Your task to perform on an android device: star an email in the gmail app Image 0: 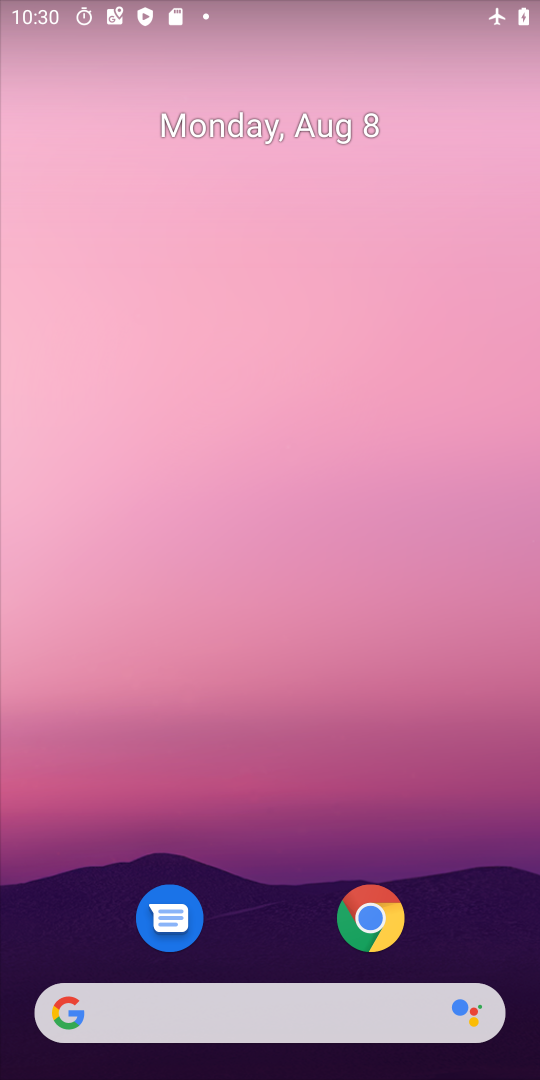
Step 0: drag from (304, 925) to (209, 91)
Your task to perform on an android device: star an email in the gmail app Image 1: 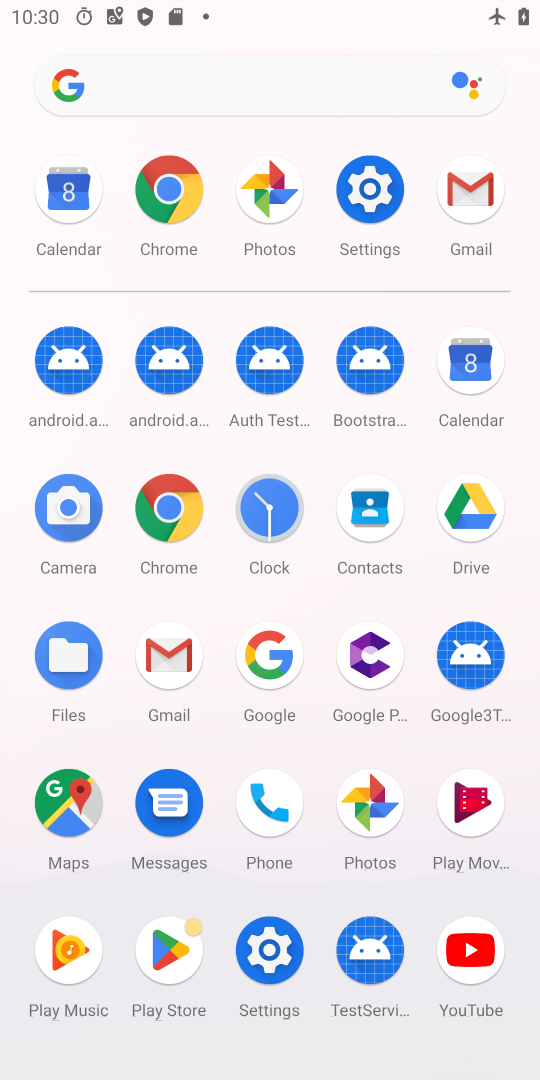
Step 1: click (162, 650)
Your task to perform on an android device: star an email in the gmail app Image 2: 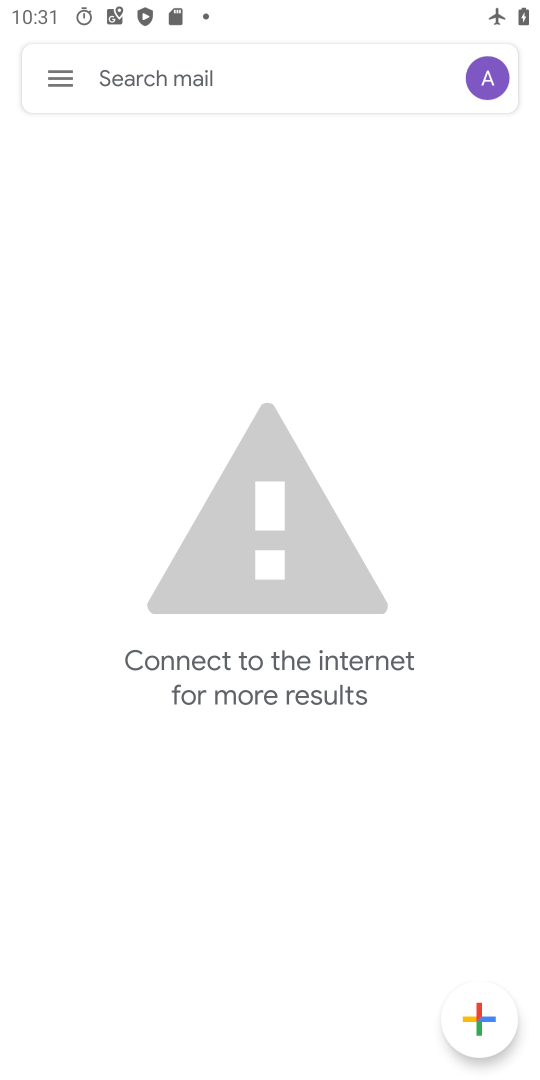
Step 2: task complete